Your task to perform on an android device: turn on bluetooth scan Image 0: 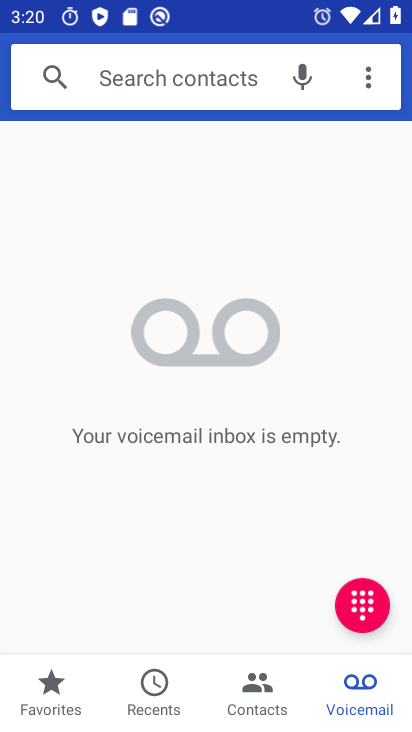
Step 0: press home button
Your task to perform on an android device: turn on bluetooth scan Image 1: 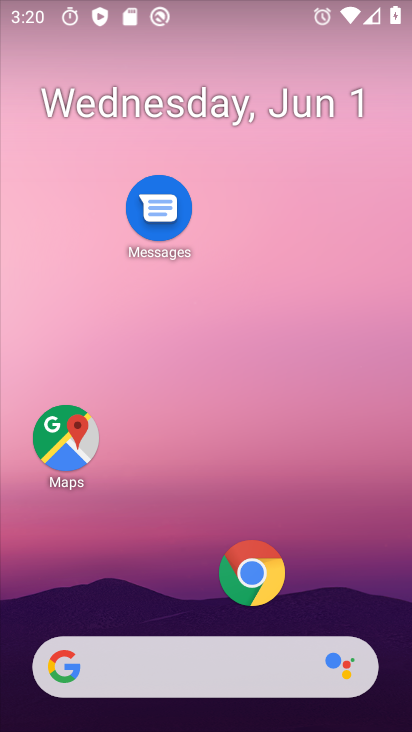
Step 1: drag from (202, 606) to (213, 231)
Your task to perform on an android device: turn on bluetooth scan Image 2: 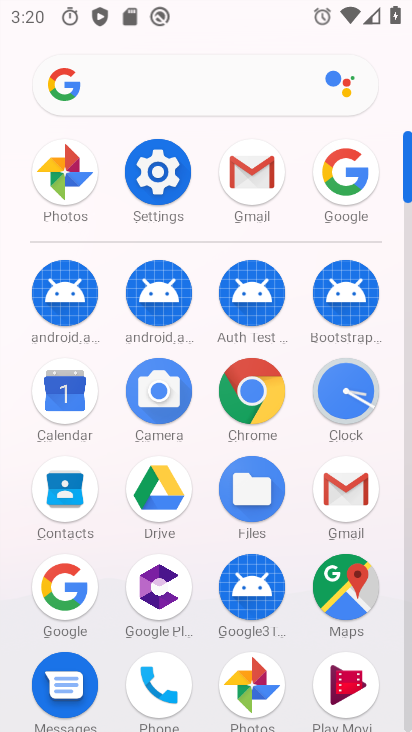
Step 2: click (175, 181)
Your task to perform on an android device: turn on bluetooth scan Image 3: 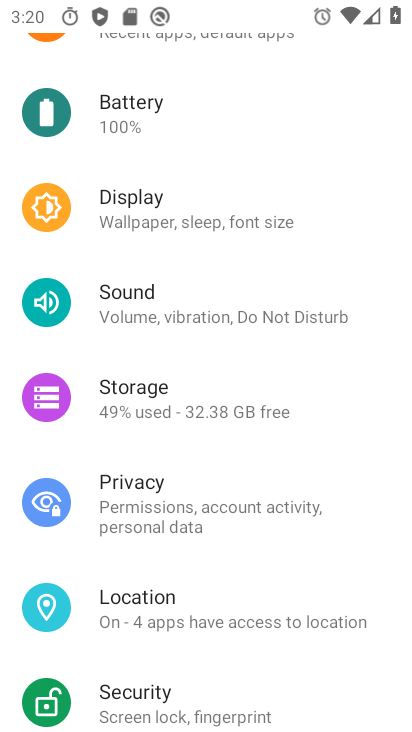
Step 3: drag from (178, 591) to (208, 310)
Your task to perform on an android device: turn on bluetooth scan Image 4: 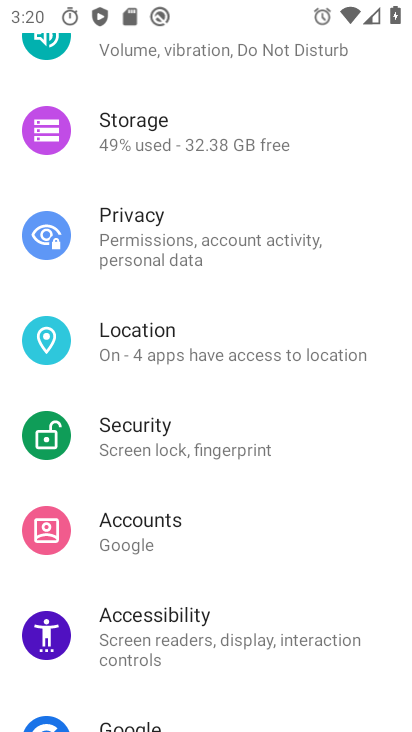
Step 4: click (202, 337)
Your task to perform on an android device: turn on bluetooth scan Image 5: 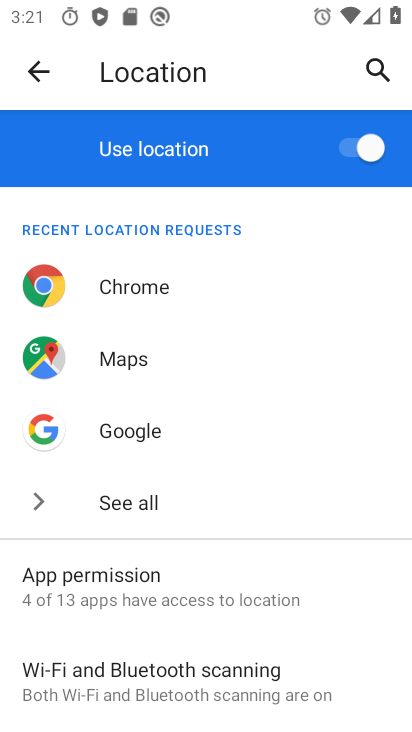
Step 5: drag from (216, 634) to (222, 464)
Your task to perform on an android device: turn on bluetooth scan Image 6: 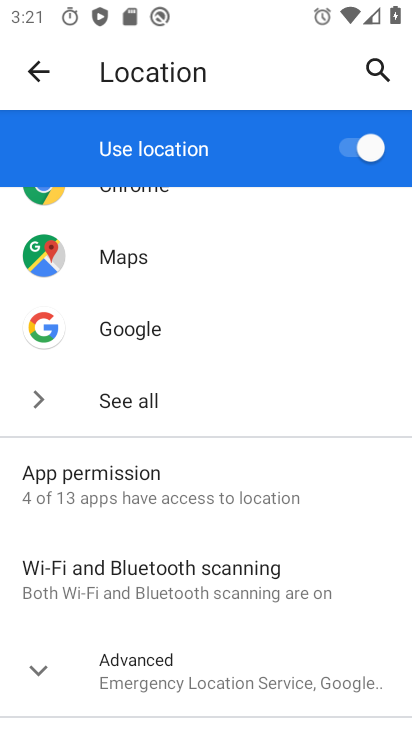
Step 6: click (236, 589)
Your task to perform on an android device: turn on bluetooth scan Image 7: 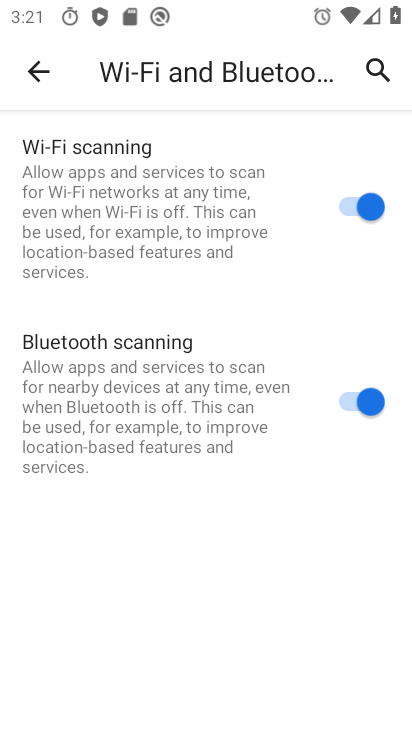
Step 7: task complete